Your task to perform on an android device: Clear all items from cart on target.com. Search for "razer kraken" on target.com, select the first entry, add it to the cart, then select checkout. Image 0: 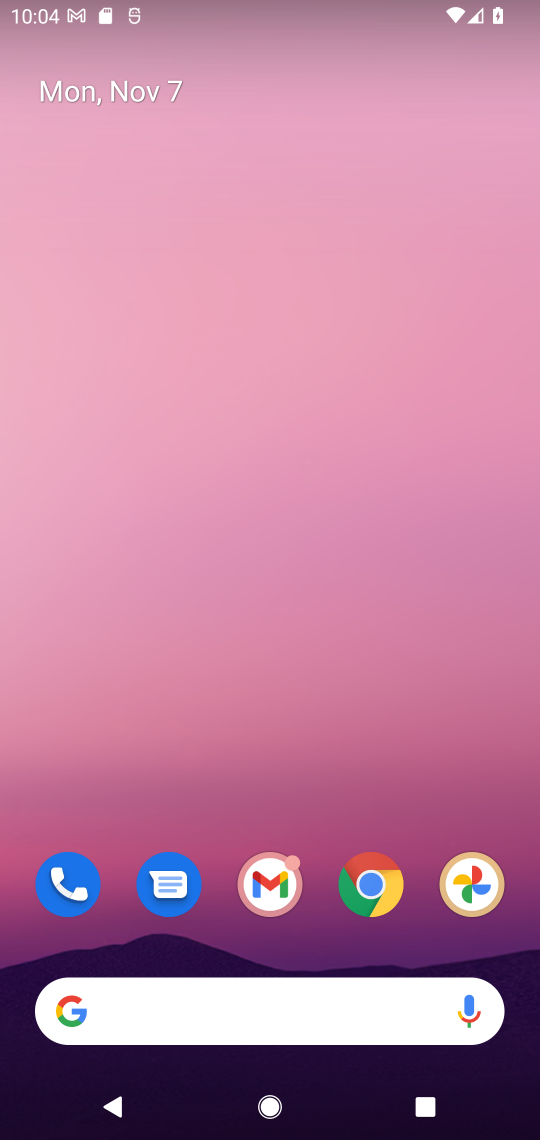
Step 0: click (372, 888)
Your task to perform on an android device: Clear all items from cart on target.com. Search for "razer kraken" on target.com, select the first entry, add it to the cart, then select checkout. Image 1: 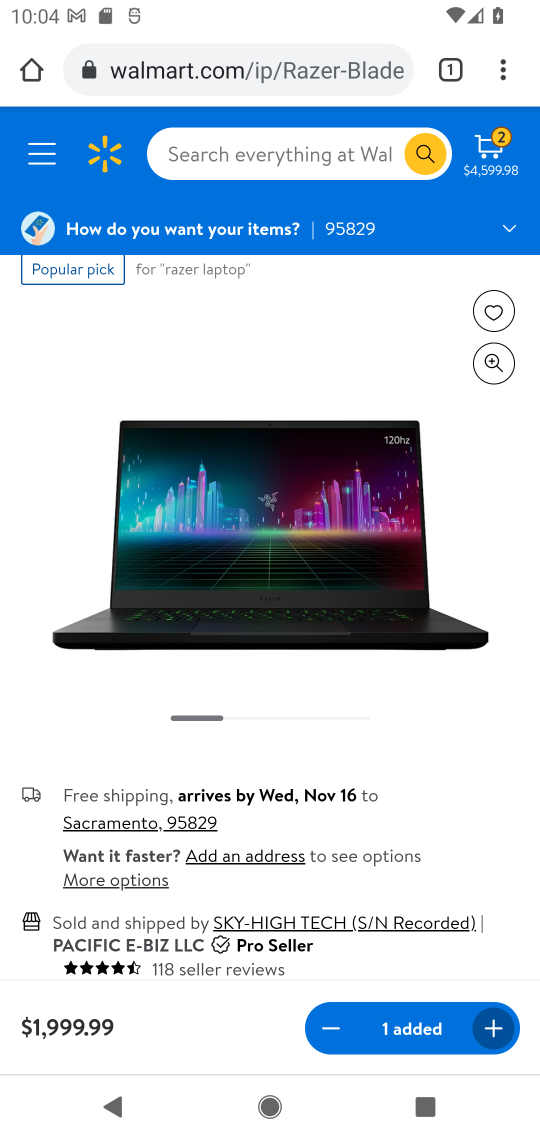
Step 1: click (34, 69)
Your task to perform on an android device: Clear all items from cart on target.com. Search for "razer kraken" on target.com, select the first entry, add it to the cart, then select checkout. Image 2: 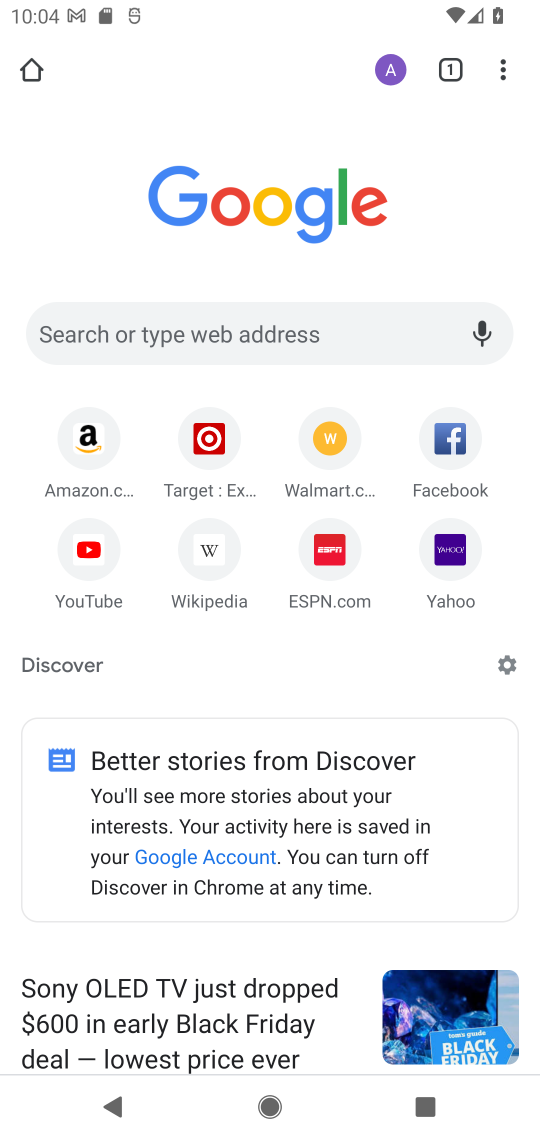
Step 2: click (190, 423)
Your task to perform on an android device: Clear all items from cart on target.com. Search for "razer kraken" on target.com, select the first entry, add it to the cart, then select checkout. Image 3: 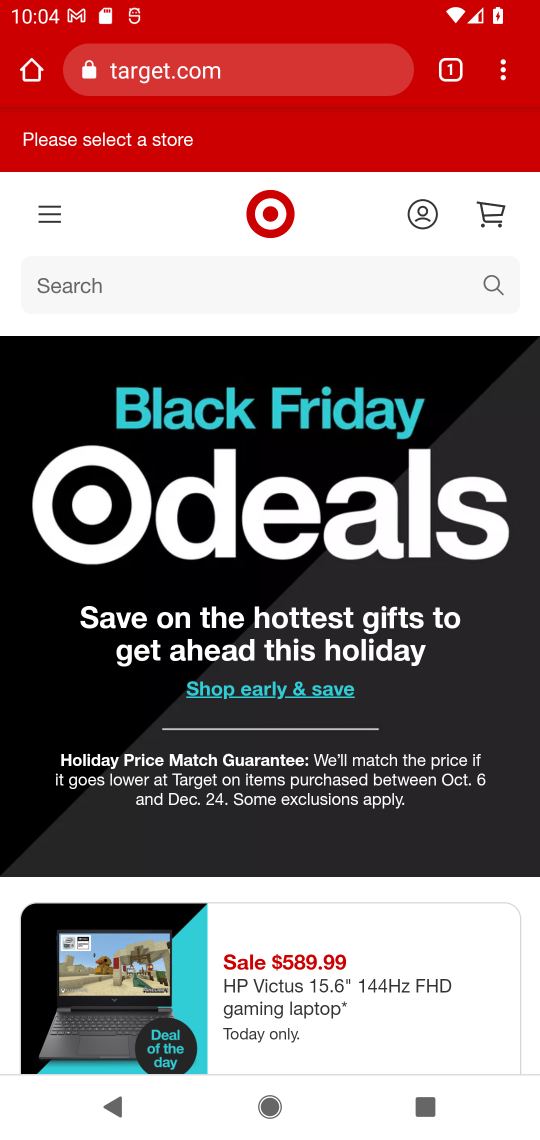
Step 3: click (484, 218)
Your task to perform on an android device: Clear all items from cart on target.com. Search for "razer kraken" on target.com, select the first entry, add it to the cart, then select checkout. Image 4: 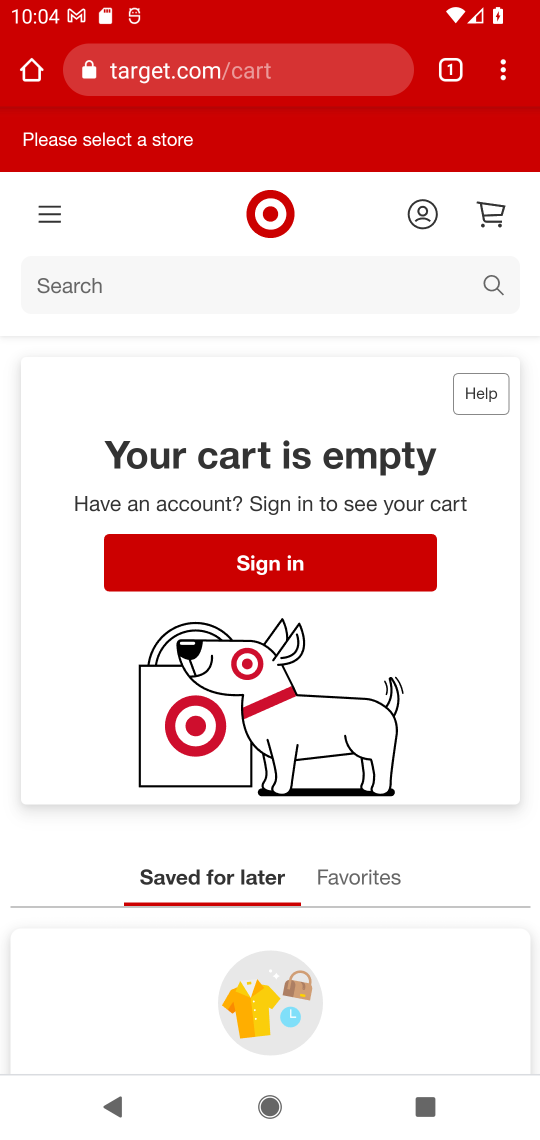
Step 4: click (489, 277)
Your task to perform on an android device: Clear all items from cart on target.com. Search for "razer kraken" on target.com, select the first entry, add it to the cart, then select checkout. Image 5: 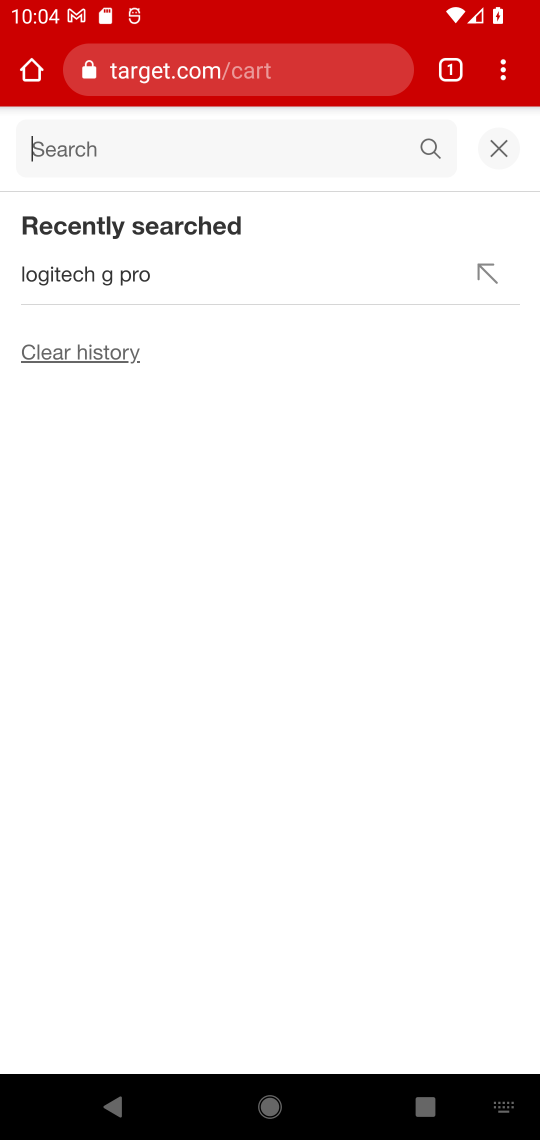
Step 5: type "razer kraken"
Your task to perform on an android device: Clear all items from cart on target.com. Search for "razer kraken" on target.com, select the first entry, add it to the cart, then select checkout. Image 6: 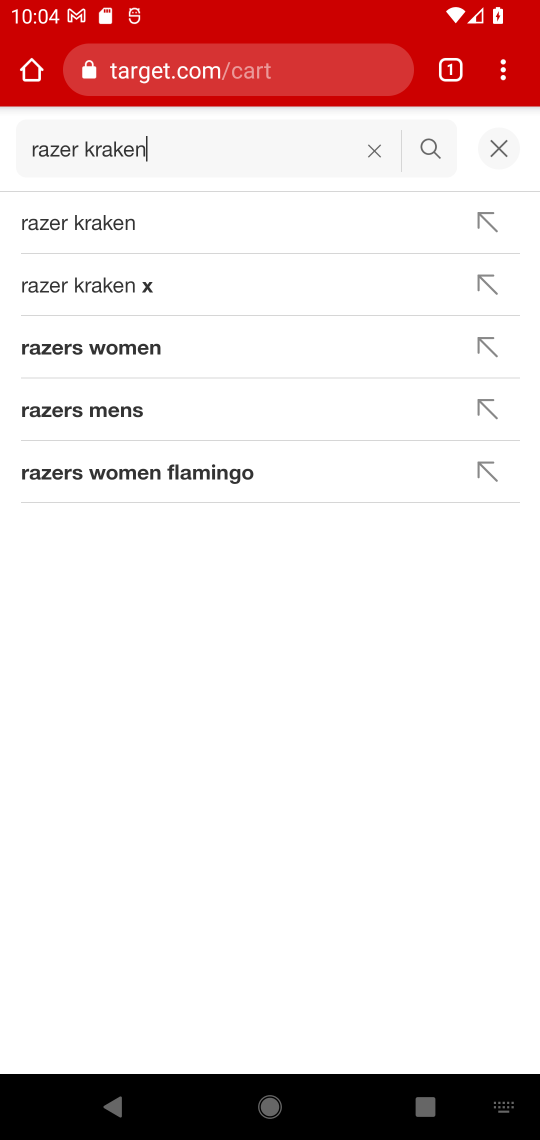
Step 6: click (93, 221)
Your task to perform on an android device: Clear all items from cart on target.com. Search for "razer kraken" on target.com, select the first entry, add it to the cart, then select checkout. Image 7: 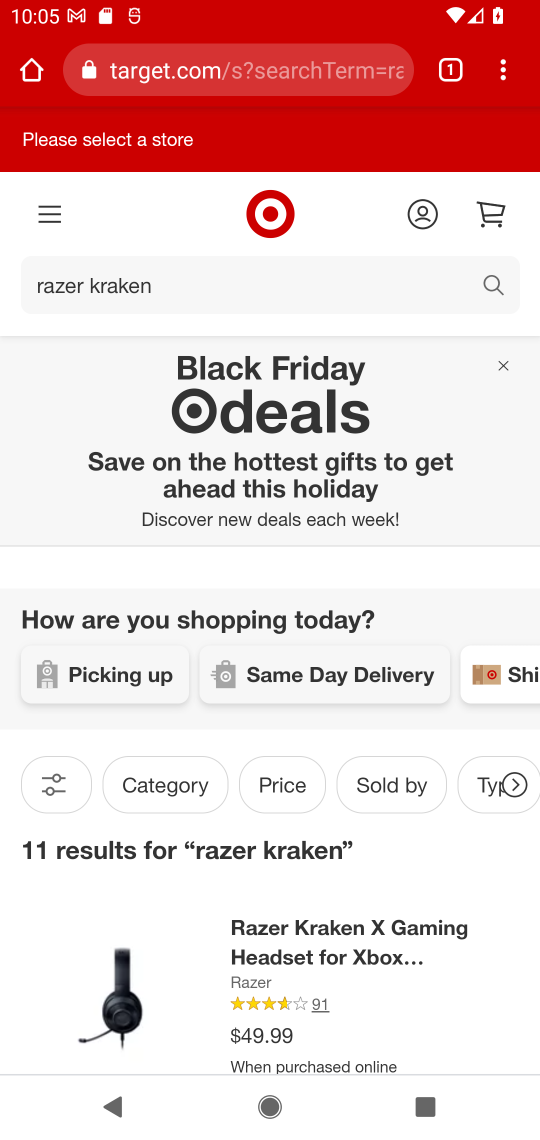
Step 7: click (148, 963)
Your task to perform on an android device: Clear all items from cart on target.com. Search for "razer kraken" on target.com, select the first entry, add it to the cart, then select checkout. Image 8: 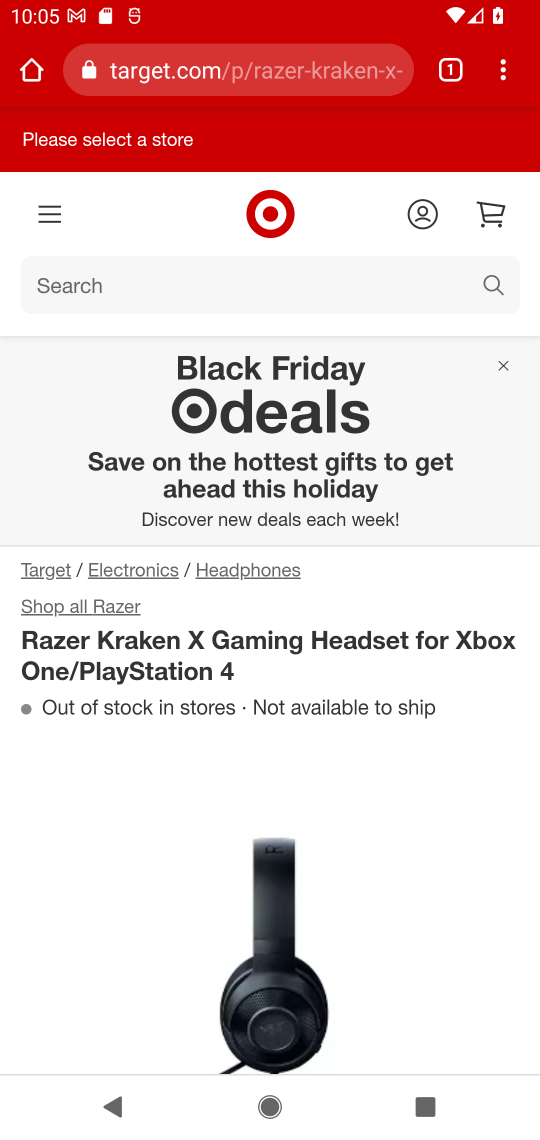
Step 8: drag from (424, 903) to (379, 378)
Your task to perform on an android device: Clear all items from cart on target.com. Search for "razer kraken" on target.com, select the first entry, add it to the cart, then select checkout. Image 9: 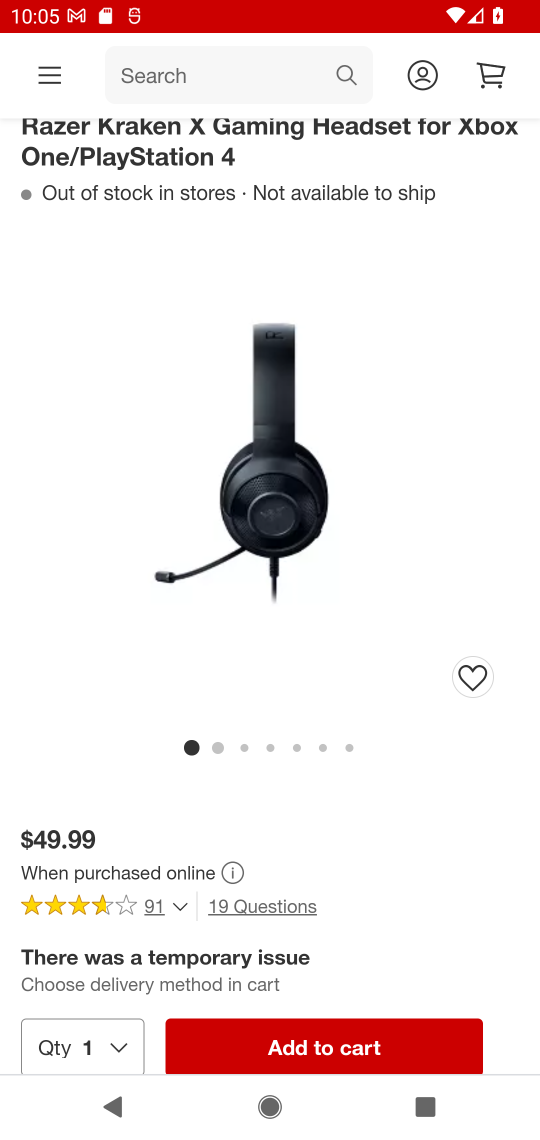
Step 9: click (367, 1047)
Your task to perform on an android device: Clear all items from cart on target.com. Search for "razer kraken" on target.com, select the first entry, add it to the cart, then select checkout. Image 10: 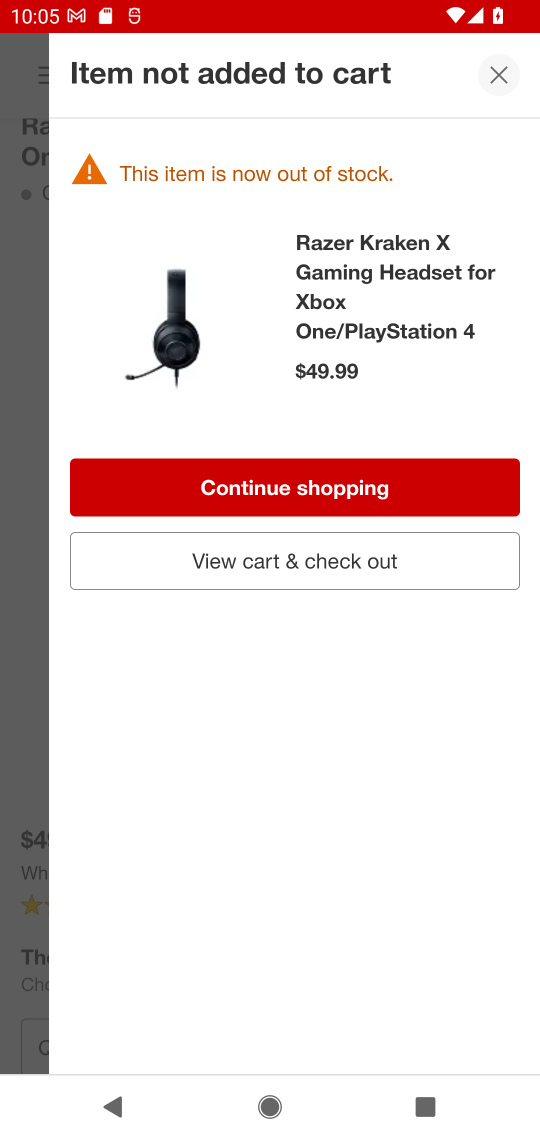
Step 10: click (504, 74)
Your task to perform on an android device: Clear all items from cart on target.com. Search for "razer kraken" on target.com, select the first entry, add it to the cart, then select checkout. Image 11: 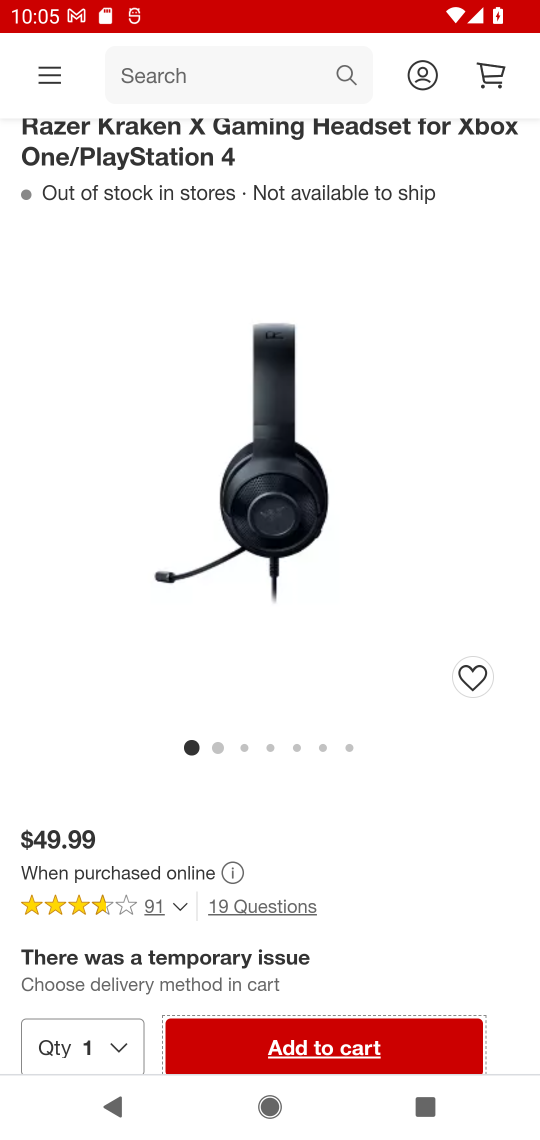
Step 11: drag from (368, 273) to (442, 815)
Your task to perform on an android device: Clear all items from cart on target.com. Search for "razer kraken" on target.com, select the first entry, add it to the cart, then select checkout. Image 12: 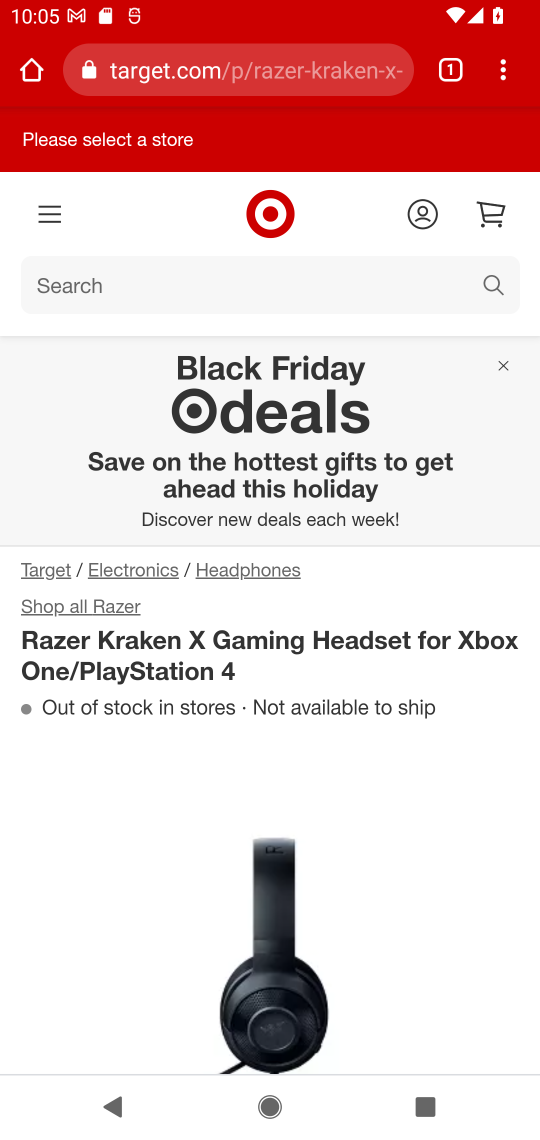
Step 12: drag from (465, 843) to (403, 369)
Your task to perform on an android device: Clear all items from cart on target.com. Search for "razer kraken" on target.com, select the first entry, add it to the cart, then select checkout. Image 13: 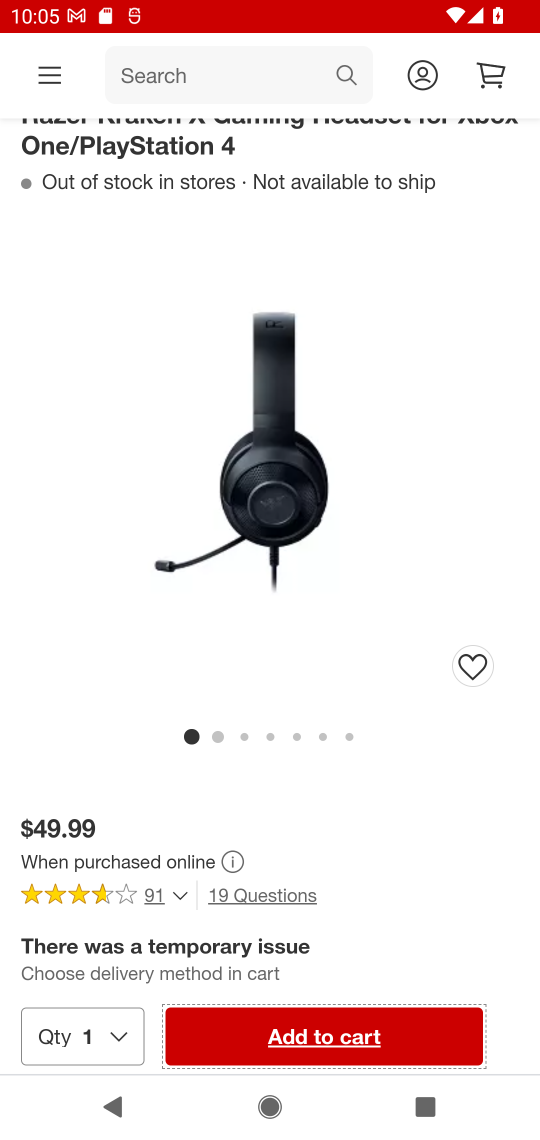
Step 13: click (376, 1029)
Your task to perform on an android device: Clear all items from cart on target.com. Search for "razer kraken" on target.com, select the first entry, add it to the cart, then select checkout. Image 14: 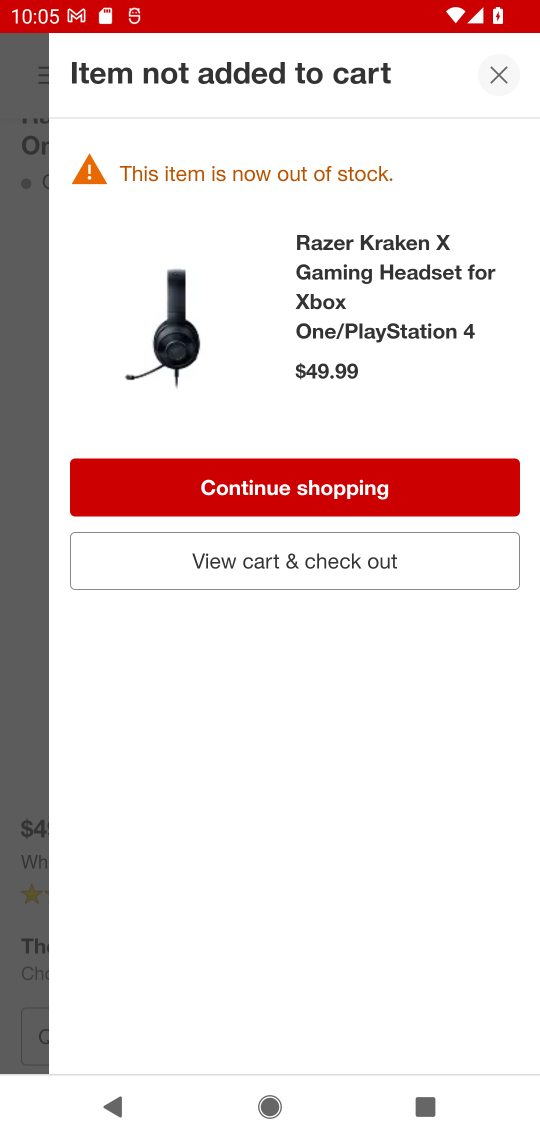
Step 14: click (505, 66)
Your task to perform on an android device: Clear all items from cart on target.com. Search for "razer kraken" on target.com, select the first entry, add it to the cart, then select checkout. Image 15: 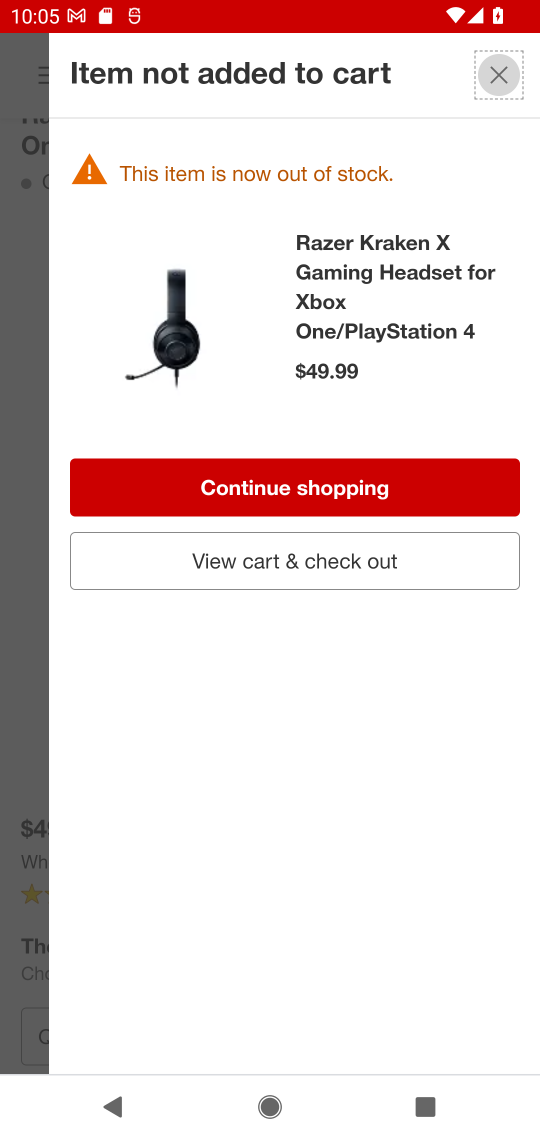
Step 15: click (508, 84)
Your task to perform on an android device: Clear all items from cart on target.com. Search for "razer kraken" on target.com, select the first entry, add it to the cart, then select checkout. Image 16: 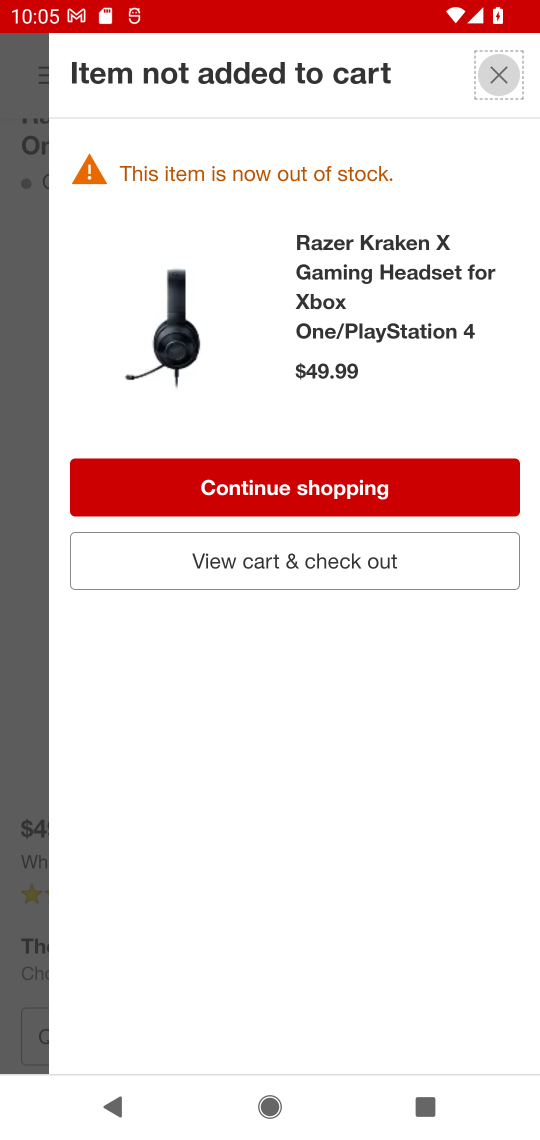
Step 16: press back button
Your task to perform on an android device: Clear all items from cart on target.com. Search for "razer kraken" on target.com, select the first entry, add it to the cart, then select checkout. Image 17: 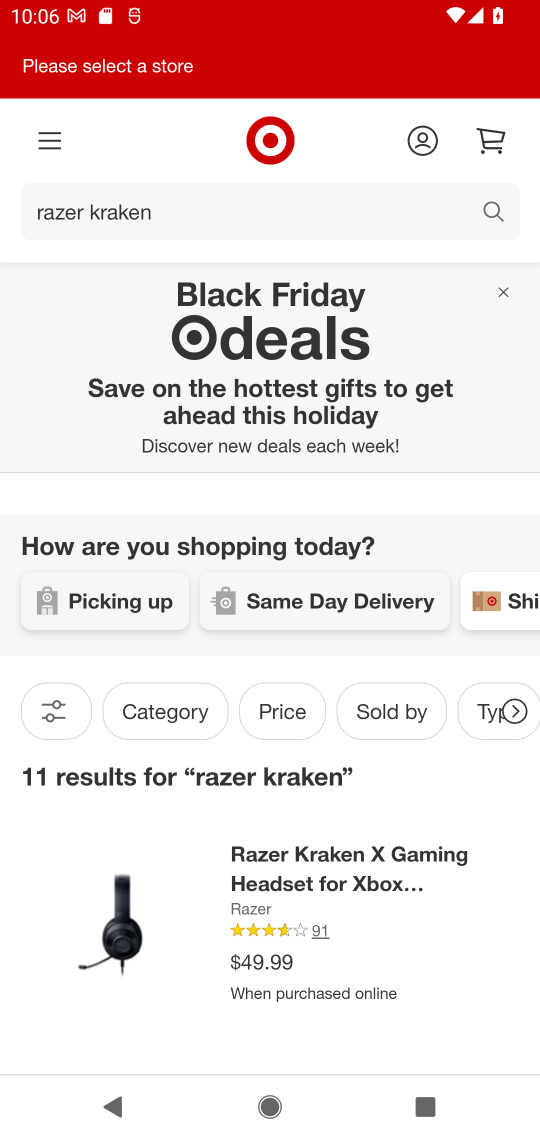
Step 17: click (371, 348)
Your task to perform on an android device: Clear all items from cart on target.com. Search for "razer kraken" on target.com, select the first entry, add it to the cart, then select checkout. Image 18: 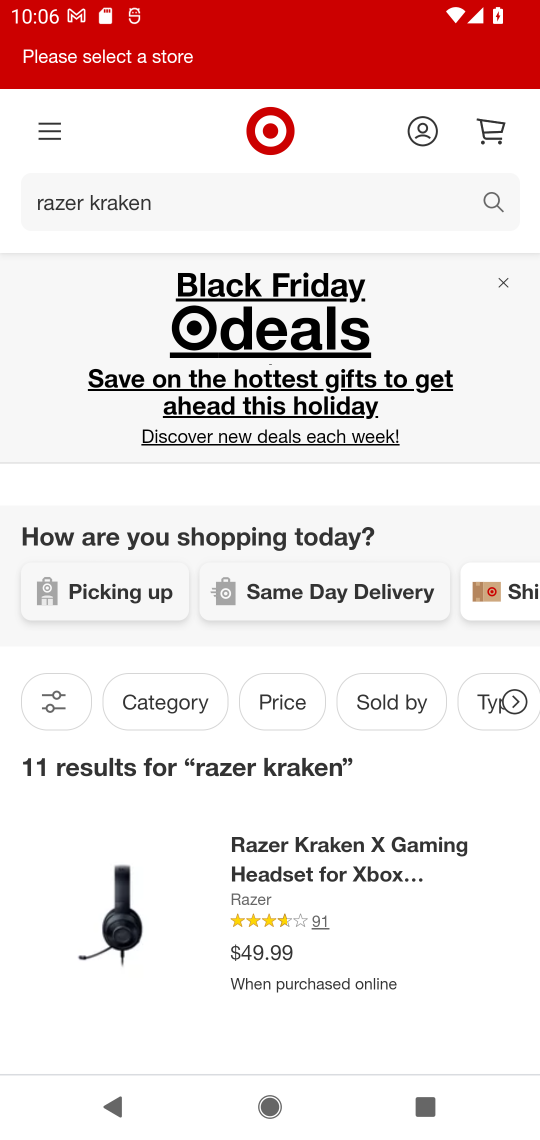
Step 18: drag from (383, 895) to (313, 492)
Your task to perform on an android device: Clear all items from cart on target.com. Search for "razer kraken" on target.com, select the first entry, add it to the cart, then select checkout. Image 19: 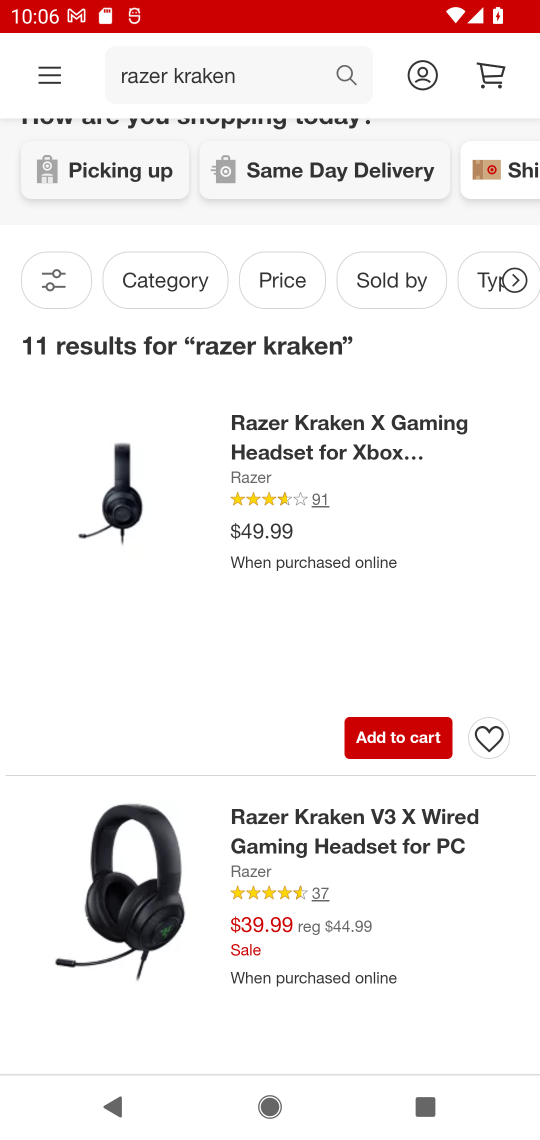
Step 19: click (122, 883)
Your task to perform on an android device: Clear all items from cart on target.com. Search for "razer kraken" on target.com, select the first entry, add it to the cart, then select checkout. Image 20: 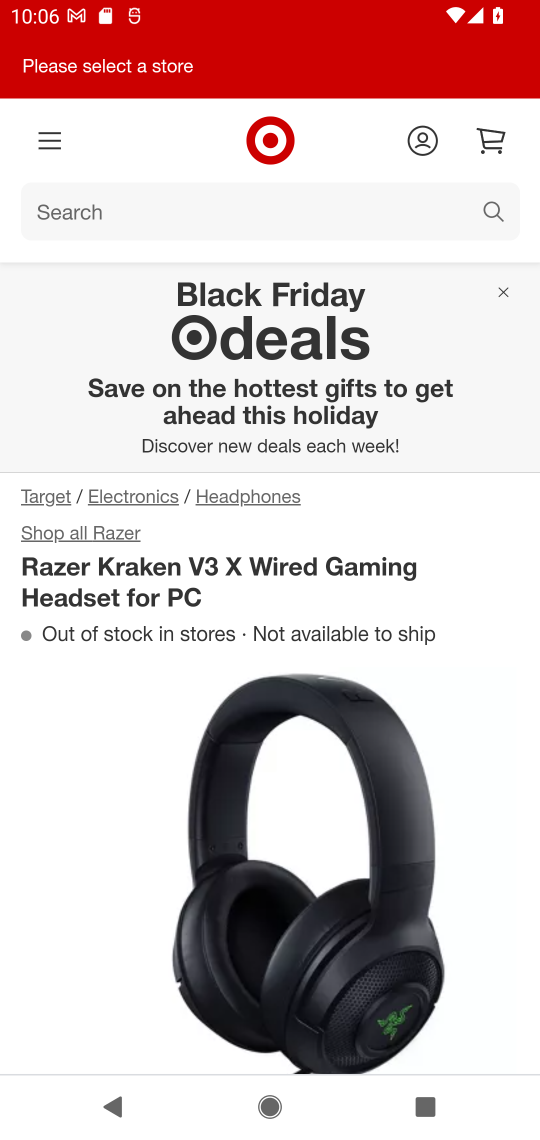
Step 20: drag from (357, 951) to (391, 312)
Your task to perform on an android device: Clear all items from cart on target.com. Search for "razer kraken" on target.com, select the first entry, add it to the cart, then select checkout. Image 21: 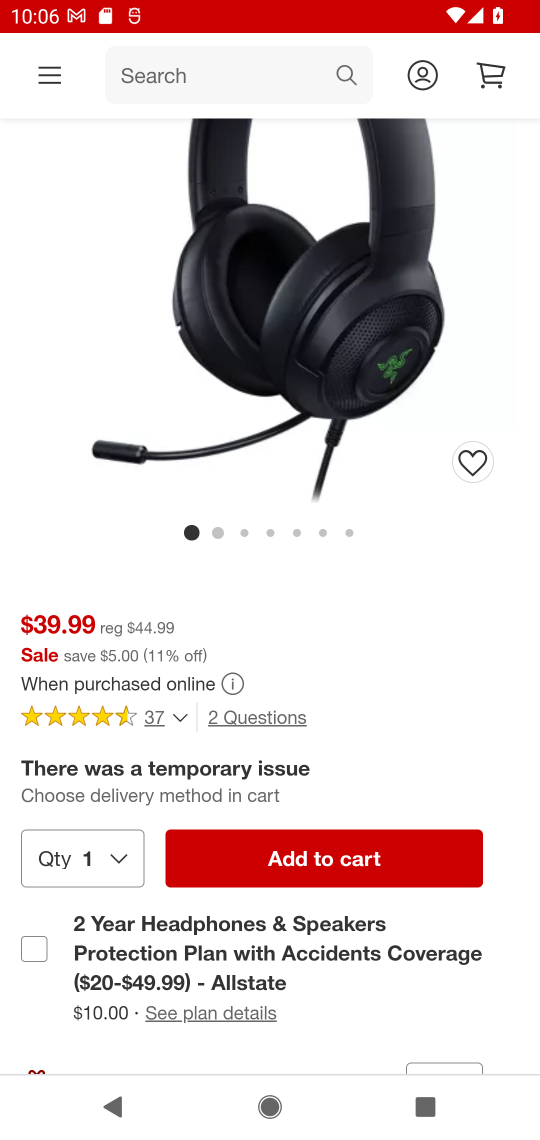
Step 21: click (283, 854)
Your task to perform on an android device: Clear all items from cart on target.com. Search for "razer kraken" on target.com, select the first entry, add it to the cart, then select checkout. Image 22: 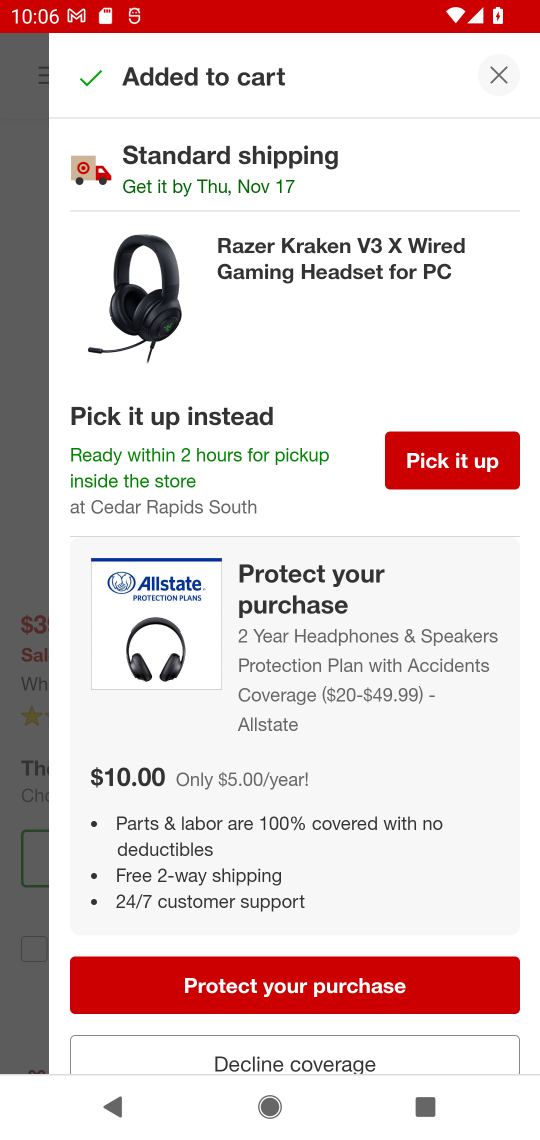
Step 22: click (500, 75)
Your task to perform on an android device: Clear all items from cart on target.com. Search for "razer kraken" on target.com, select the first entry, add it to the cart, then select checkout. Image 23: 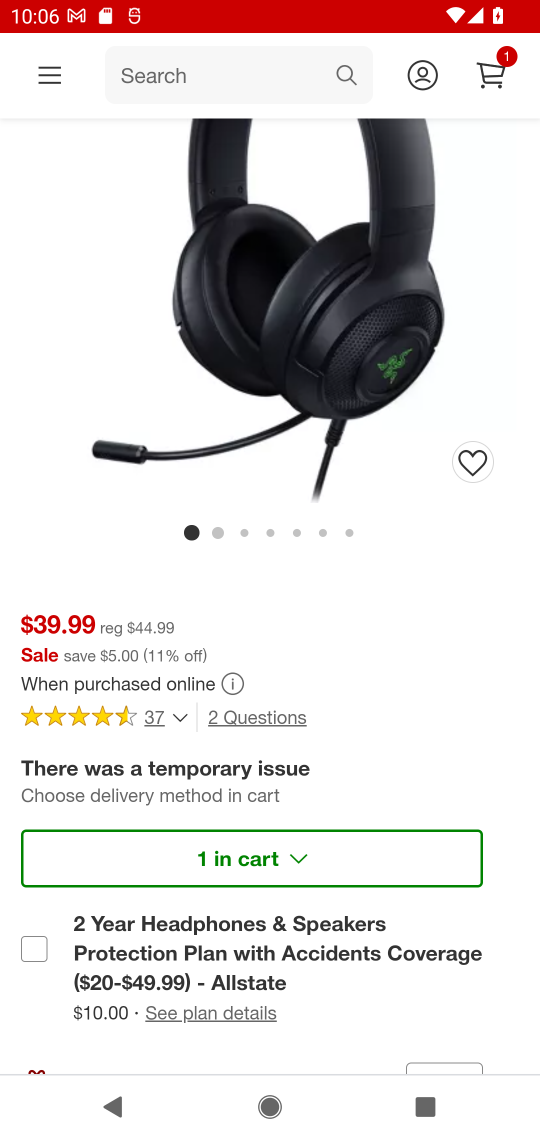
Step 23: click (499, 75)
Your task to perform on an android device: Clear all items from cart on target.com. Search for "razer kraken" on target.com, select the first entry, add it to the cart, then select checkout. Image 24: 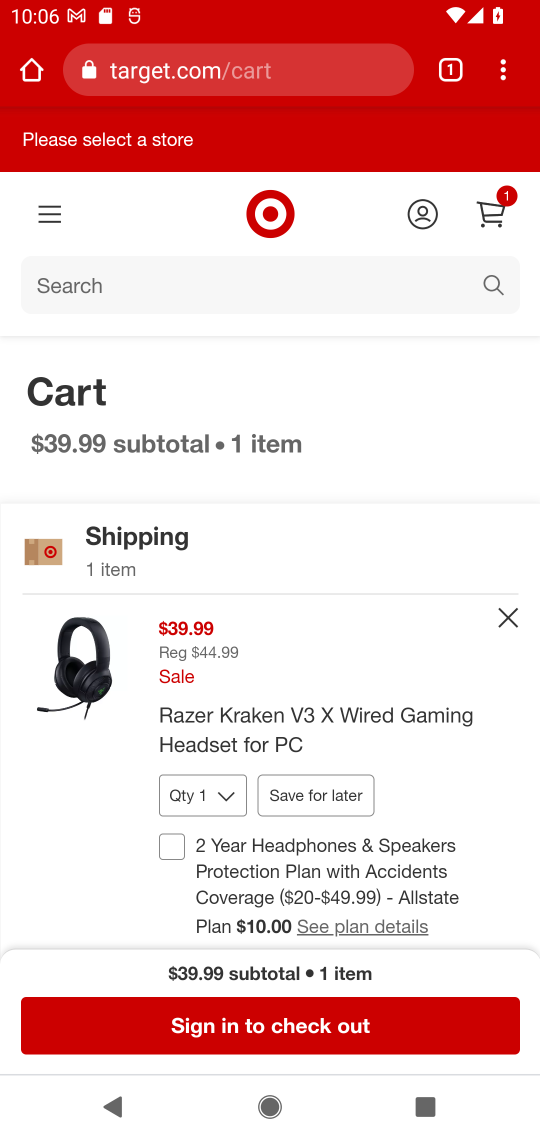
Step 24: click (332, 1023)
Your task to perform on an android device: Clear all items from cart on target.com. Search for "razer kraken" on target.com, select the first entry, add it to the cart, then select checkout. Image 25: 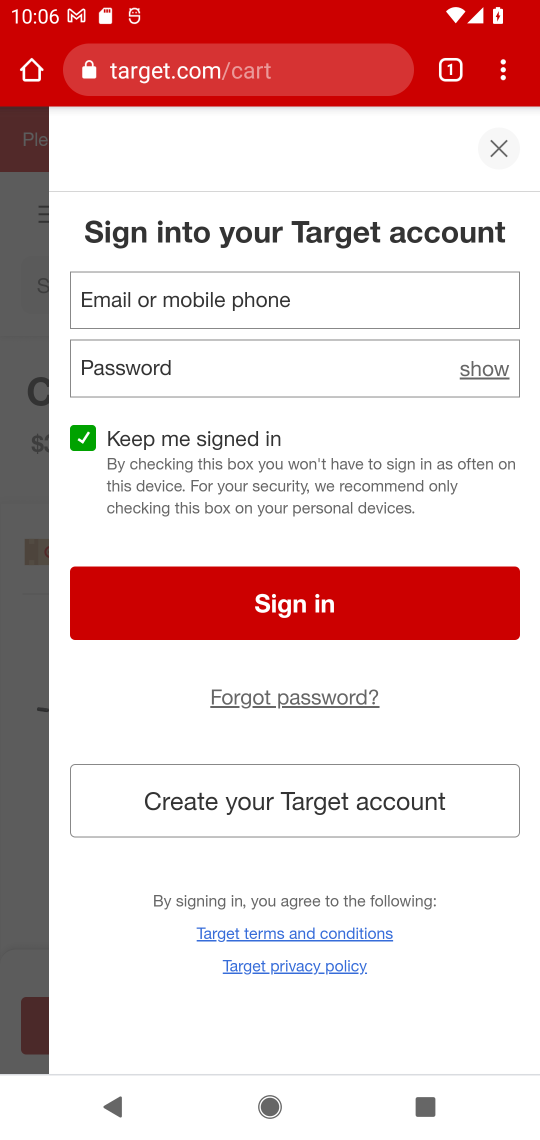
Step 25: task complete